Your task to perform on an android device: Open CNN.com Image 0: 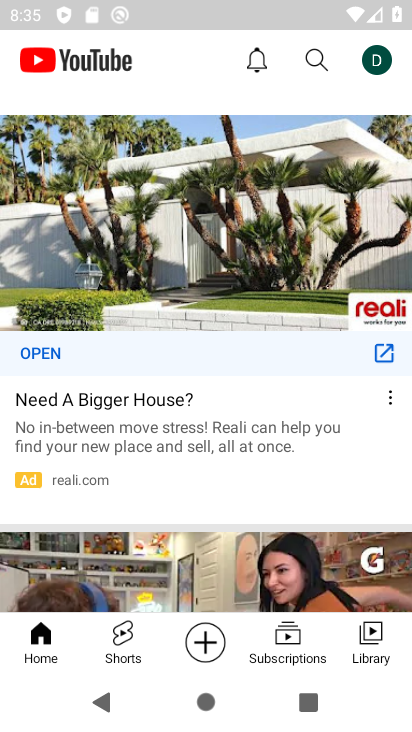
Step 0: press home button
Your task to perform on an android device: Open CNN.com Image 1: 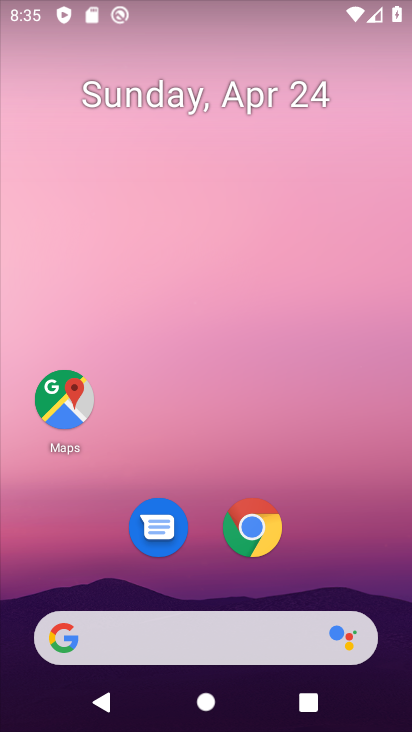
Step 1: click (245, 534)
Your task to perform on an android device: Open CNN.com Image 2: 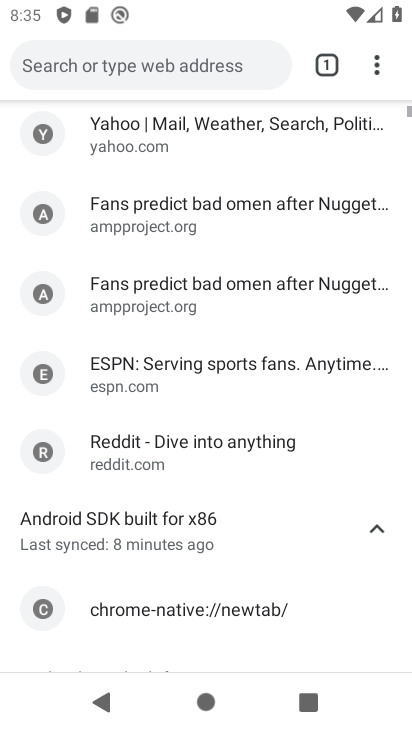
Step 2: click (113, 61)
Your task to perform on an android device: Open CNN.com Image 3: 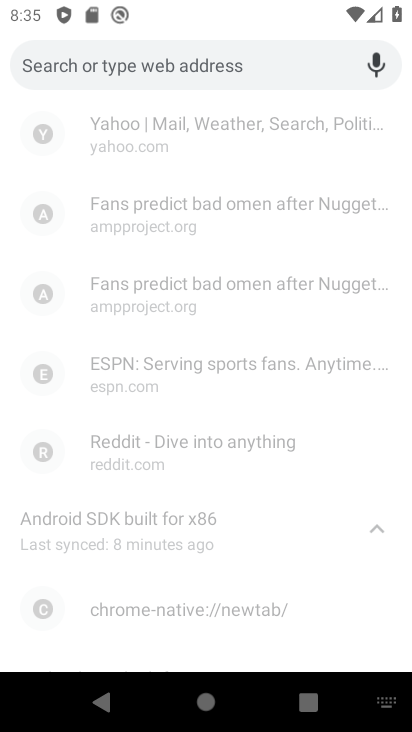
Step 3: type "cnn.com"
Your task to perform on an android device: Open CNN.com Image 4: 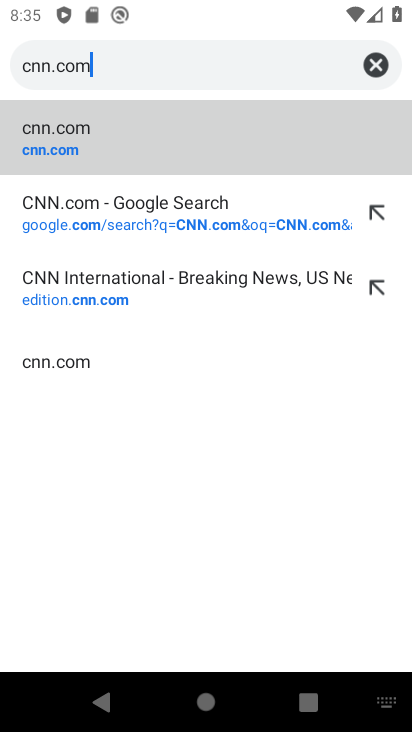
Step 4: click (30, 132)
Your task to perform on an android device: Open CNN.com Image 5: 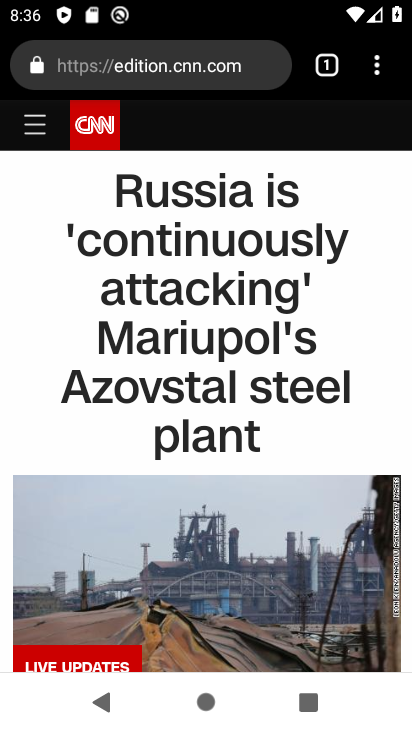
Step 5: task complete